Your task to perform on an android device: turn on data saver in the chrome app Image 0: 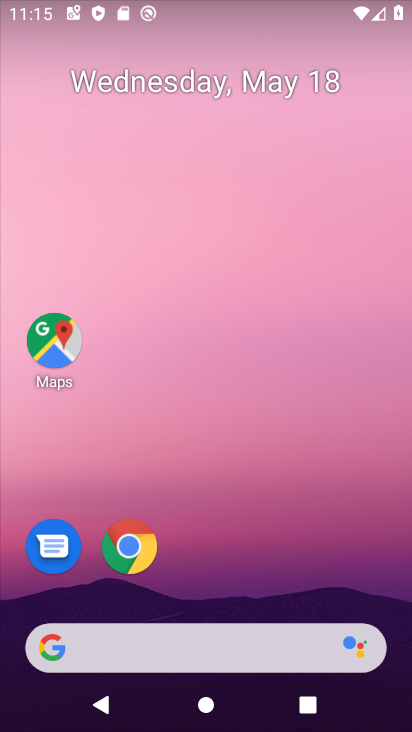
Step 0: click (126, 552)
Your task to perform on an android device: turn on data saver in the chrome app Image 1: 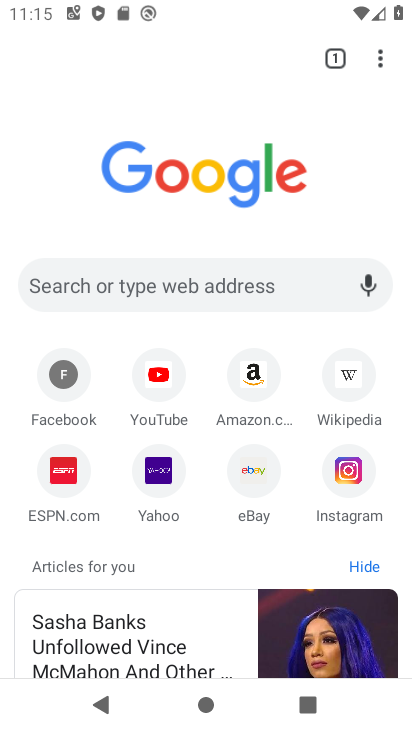
Step 1: click (367, 59)
Your task to perform on an android device: turn on data saver in the chrome app Image 2: 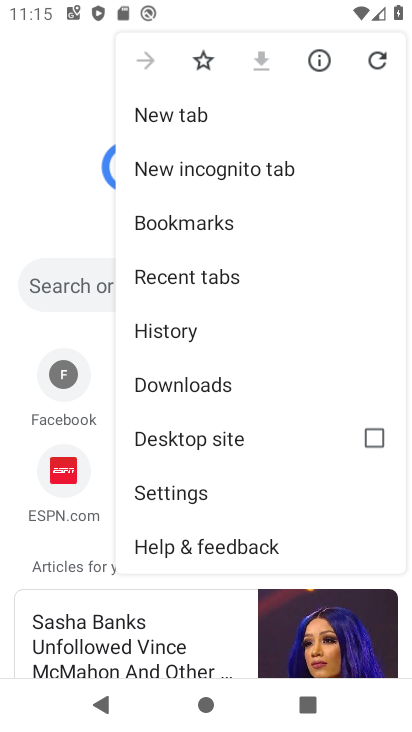
Step 2: click (214, 490)
Your task to perform on an android device: turn on data saver in the chrome app Image 3: 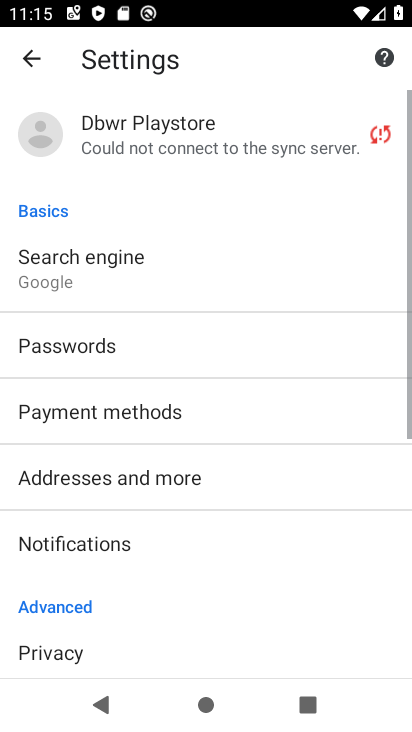
Step 3: drag from (174, 550) to (224, 118)
Your task to perform on an android device: turn on data saver in the chrome app Image 4: 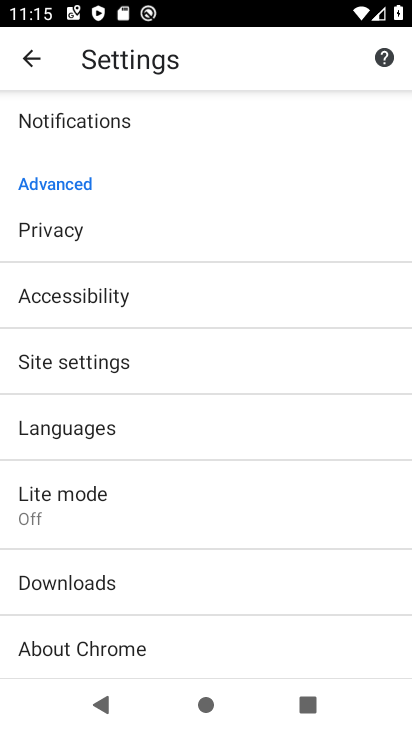
Step 4: click (94, 495)
Your task to perform on an android device: turn on data saver in the chrome app Image 5: 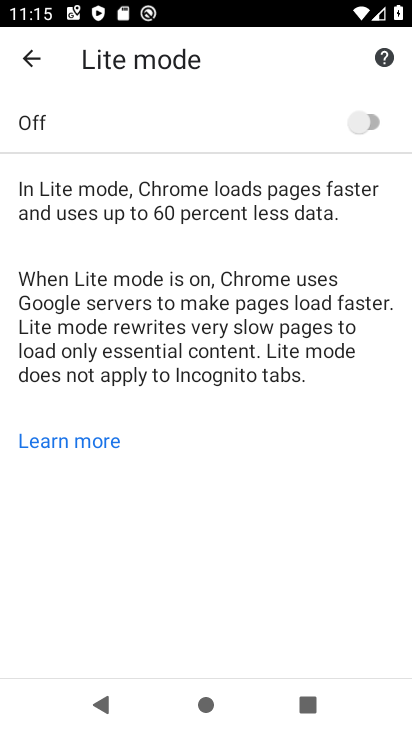
Step 5: click (373, 117)
Your task to perform on an android device: turn on data saver in the chrome app Image 6: 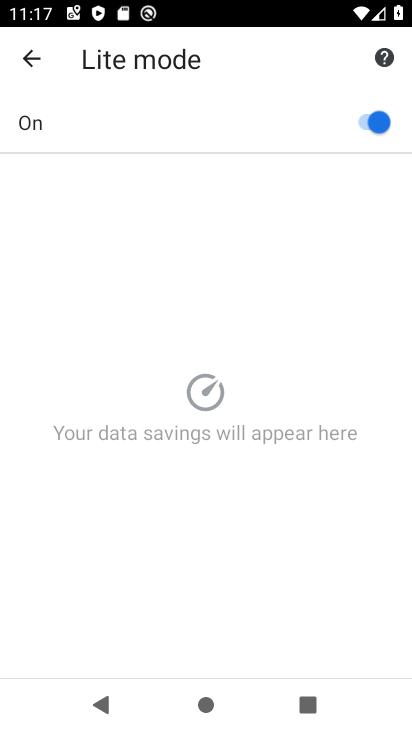
Step 6: task complete